Your task to perform on an android device: Go to calendar. Show me events next week Image 0: 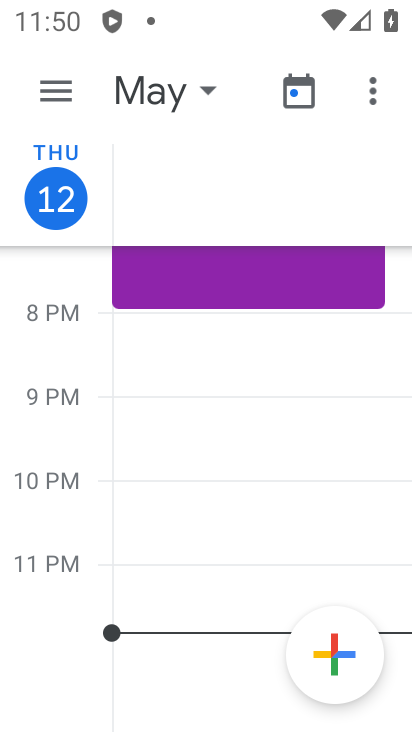
Step 0: press home button
Your task to perform on an android device: Go to calendar. Show me events next week Image 1: 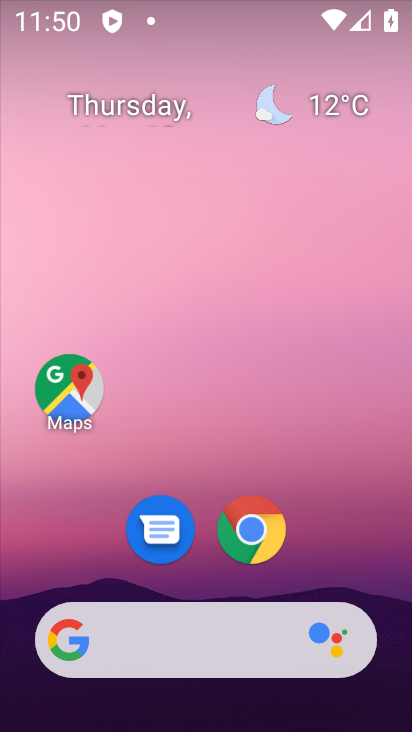
Step 1: drag from (315, 549) to (303, 284)
Your task to perform on an android device: Go to calendar. Show me events next week Image 2: 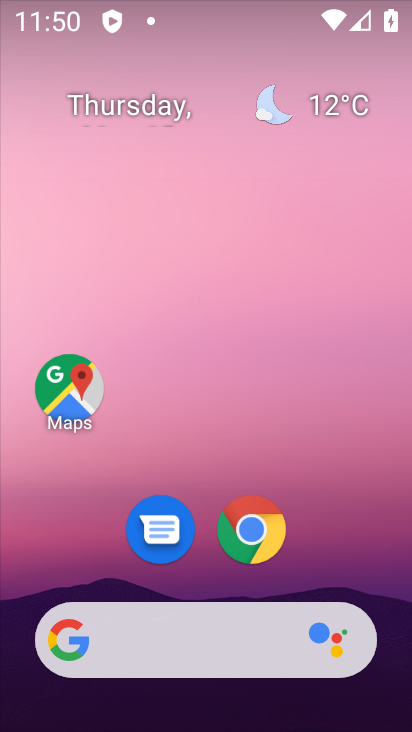
Step 2: drag from (337, 549) to (308, 191)
Your task to perform on an android device: Go to calendar. Show me events next week Image 3: 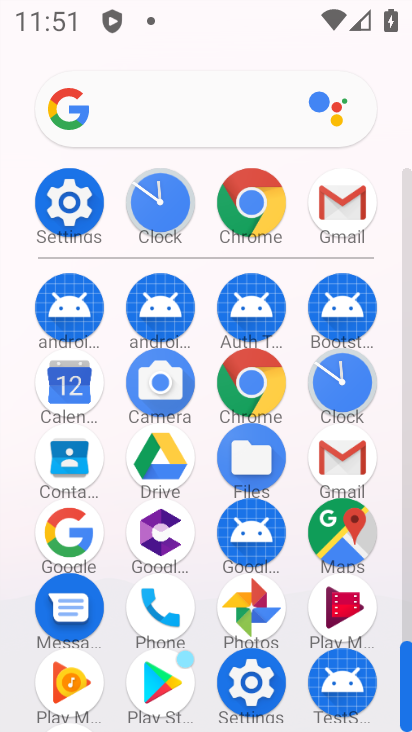
Step 3: click (73, 376)
Your task to perform on an android device: Go to calendar. Show me events next week Image 4: 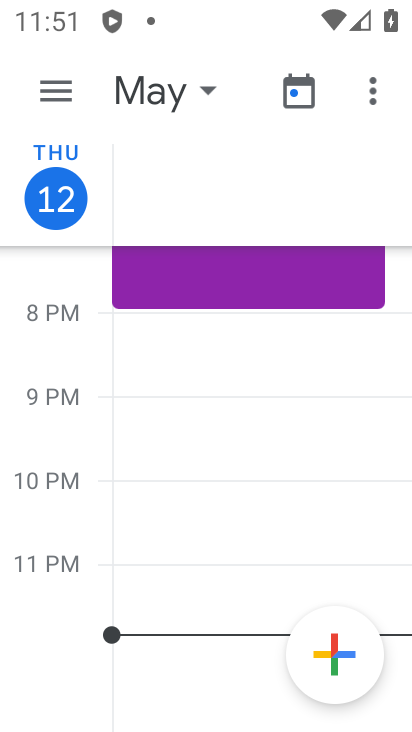
Step 4: click (63, 90)
Your task to perform on an android device: Go to calendar. Show me events next week Image 5: 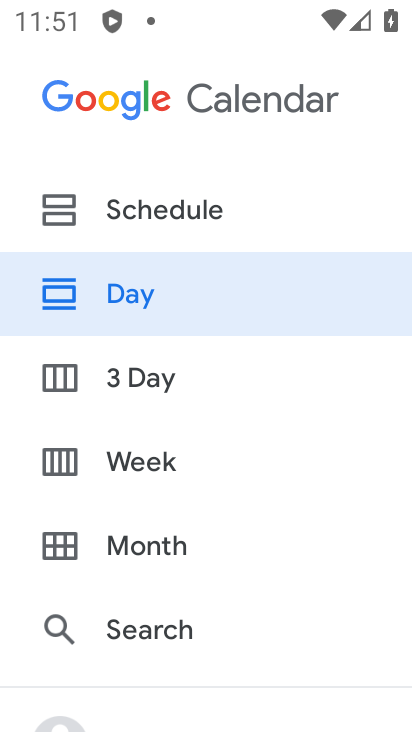
Step 5: click (189, 554)
Your task to perform on an android device: Go to calendar. Show me events next week Image 6: 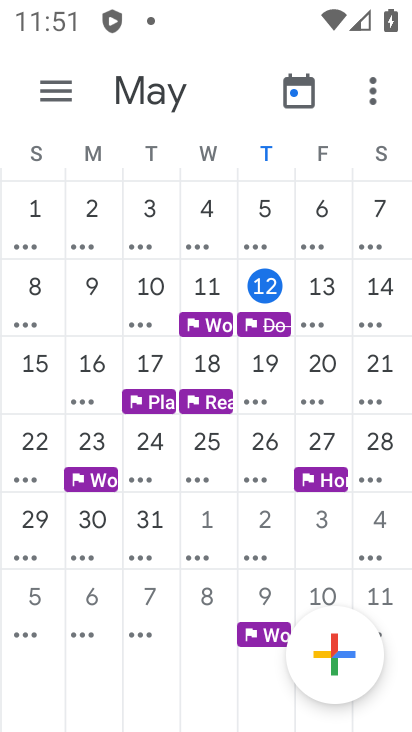
Step 6: click (311, 284)
Your task to perform on an android device: Go to calendar. Show me events next week Image 7: 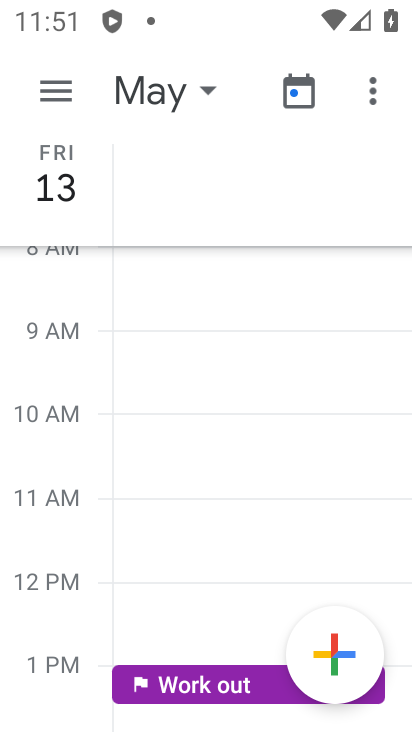
Step 7: press back button
Your task to perform on an android device: Go to calendar. Show me events next week Image 8: 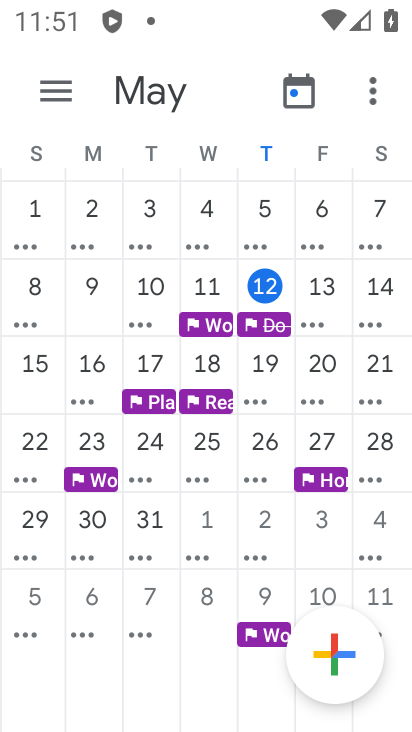
Step 8: click (145, 371)
Your task to perform on an android device: Go to calendar. Show me events next week Image 9: 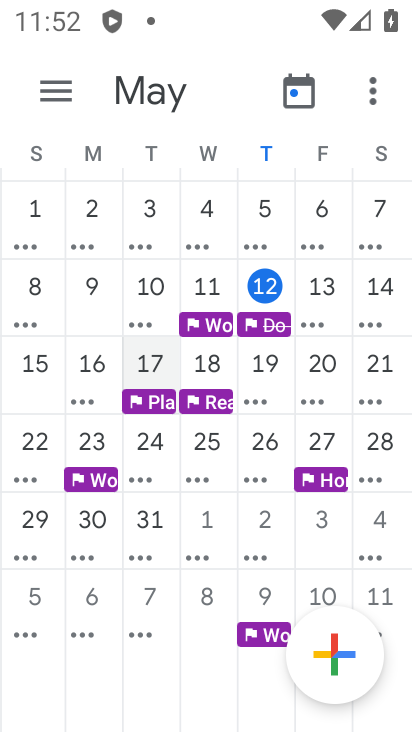
Step 9: task complete